Your task to perform on an android device: visit the assistant section in the google photos Image 0: 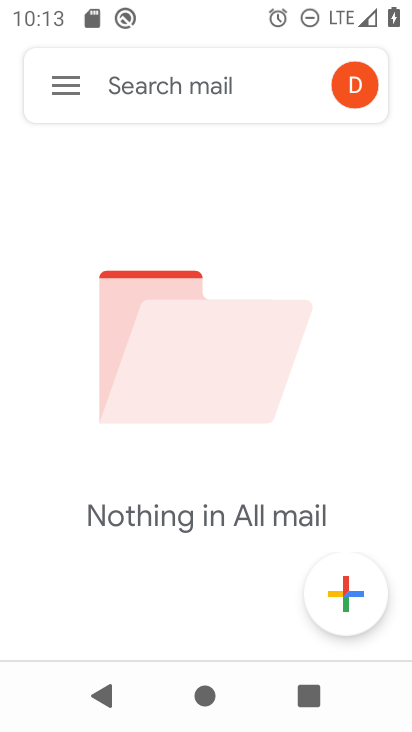
Step 0: press home button
Your task to perform on an android device: visit the assistant section in the google photos Image 1: 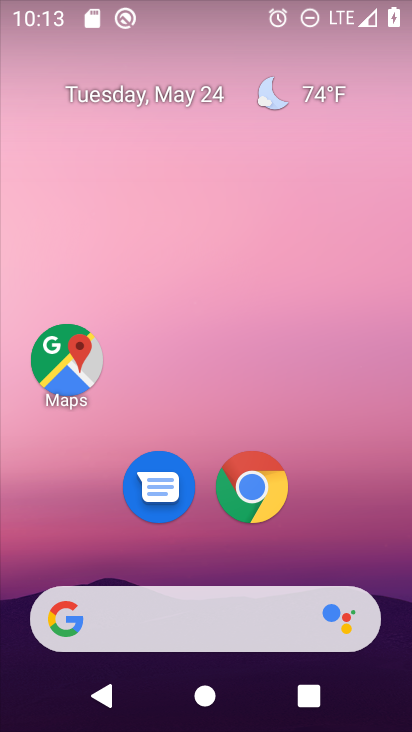
Step 1: drag from (384, 569) to (323, 17)
Your task to perform on an android device: visit the assistant section in the google photos Image 2: 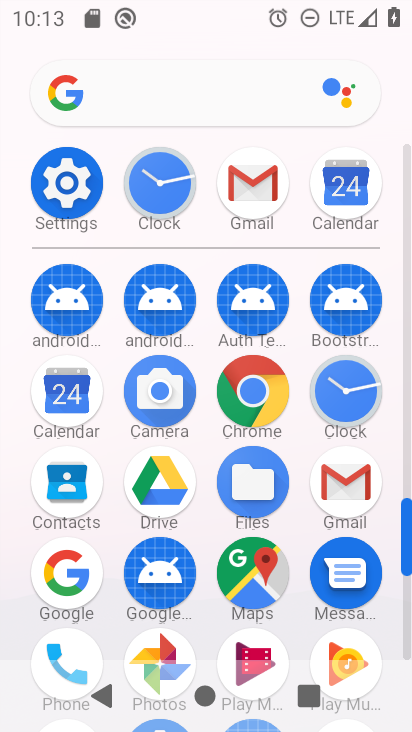
Step 2: click (409, 412)
Your task to perform on an android device: visit the assistant section in the google photos Image 3: 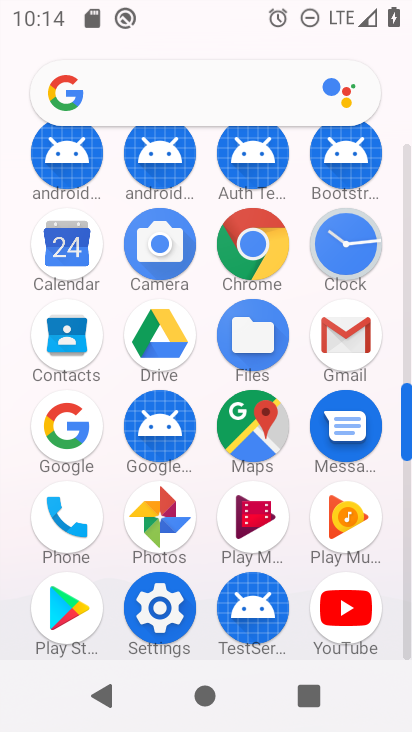
Step 3: click (156, 518)
Your task to perform on an android device: visit the assistant section in the google photos Image 4: 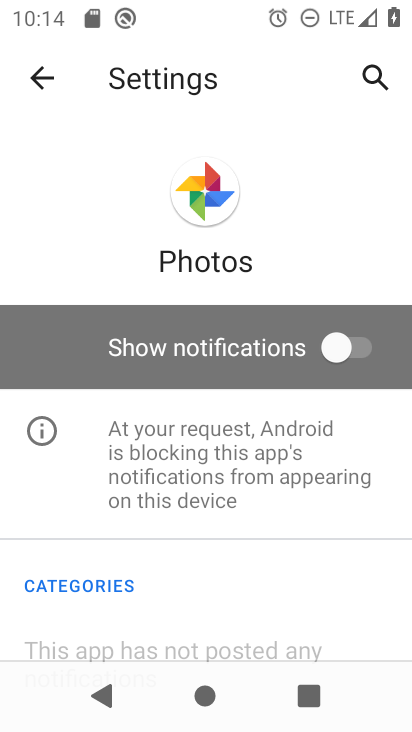
Step 4: click (30, 80)
Your task to perform on an android device: visit the assistant section in the google photos Image 5: 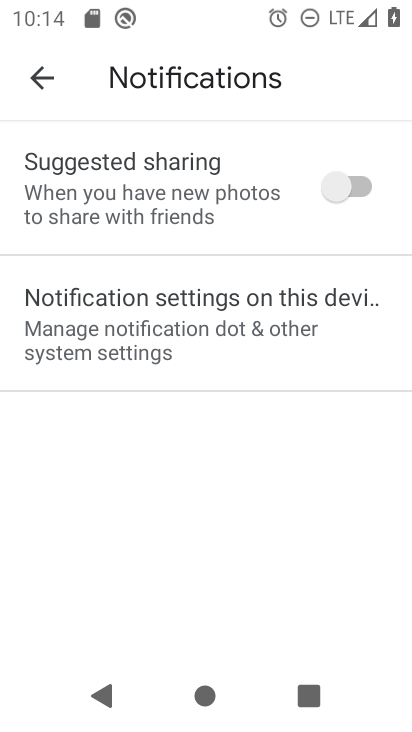
Step 5: click (35, 85)
Your task to perform on an android device: visit the assistant section in the google photos Image 6: 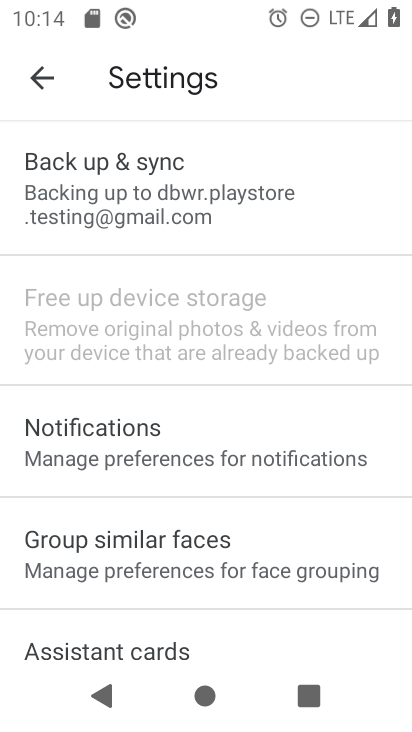
Step 6: click (41, 80)
Your task to perform on an android device: visit the assistant section in the google photos Image 7: 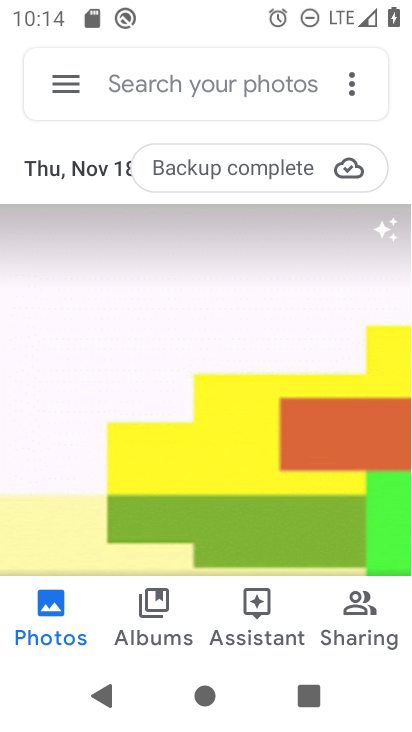
Step 7: click (254, 643)
Your task to perform on an android device: visit the assistant section in the google photos Image 8: 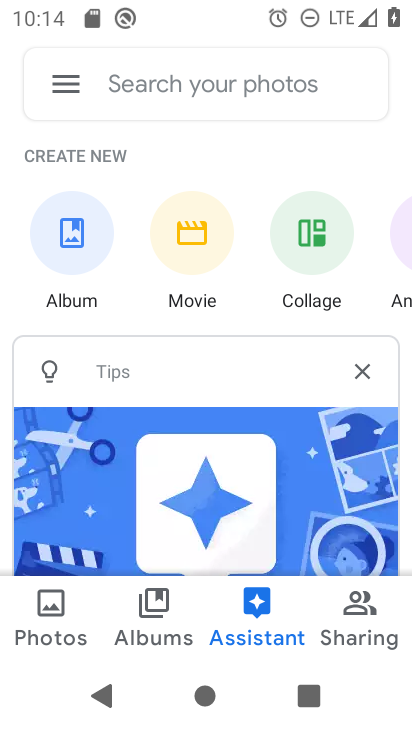
Step 8: task complete